Your task to perform on an android device: change the clock display to show seconds Image 0: 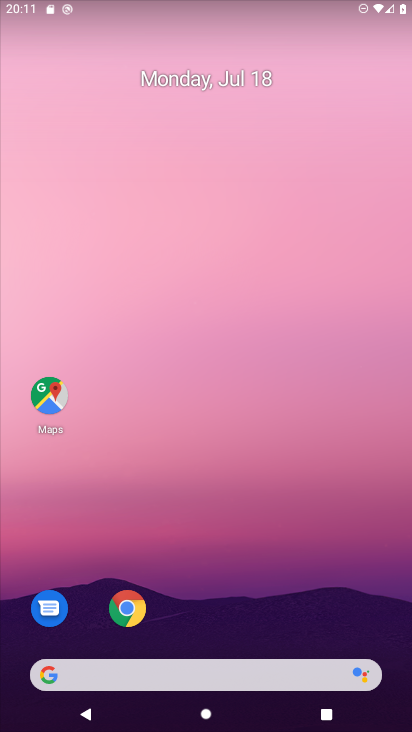
Step 0: drag from (229, 628) to (233, 224)
Your task to perform on an android device: change the clock display to show seconds Image 1: 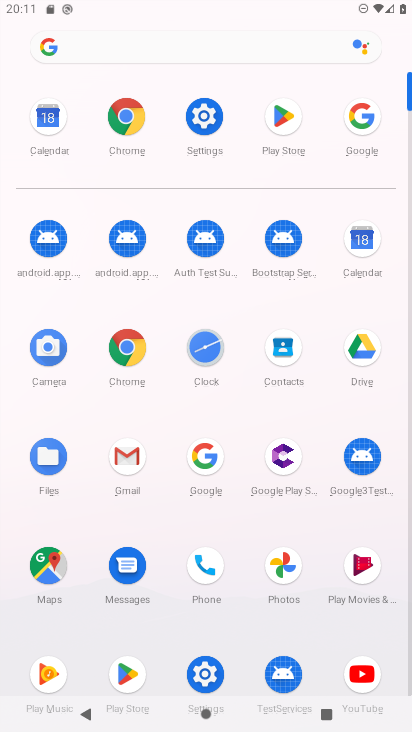
Step 1: click (205, 351)
Your task to perform on an android device: change the clock display to show seconds Image 2: 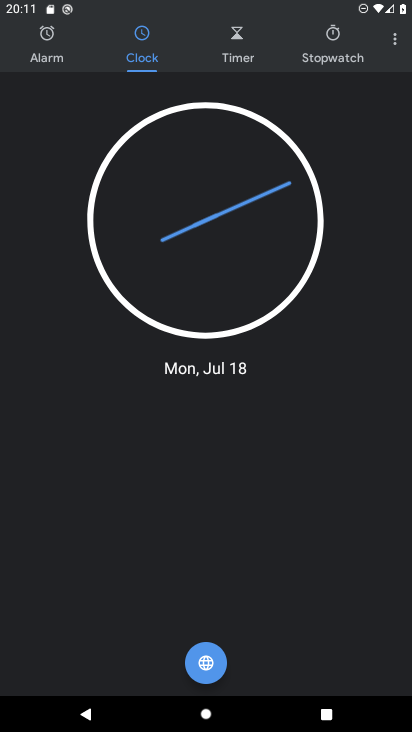
Step 2: click (390, 33)
Your task to perform on an android device: change the clock display to show seconds Image 3: 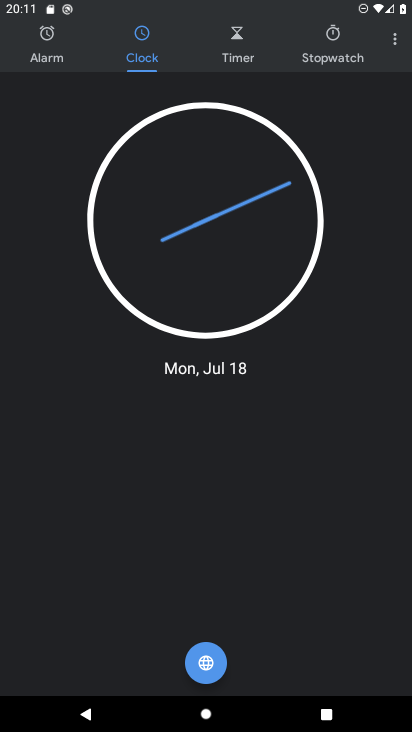
Step 3: click (391, 40)
Your task to perform on an android device: change the clock display to show seconds Image 4: 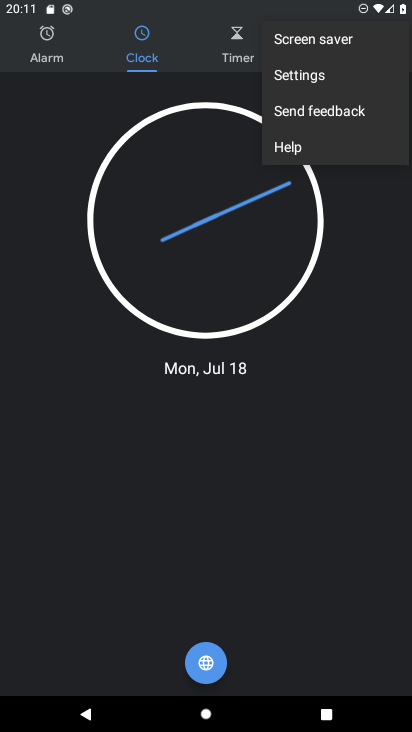
Step 4: click (318, 78)
Your task to perform on an android device: change the clock display to show seconds Image 5: 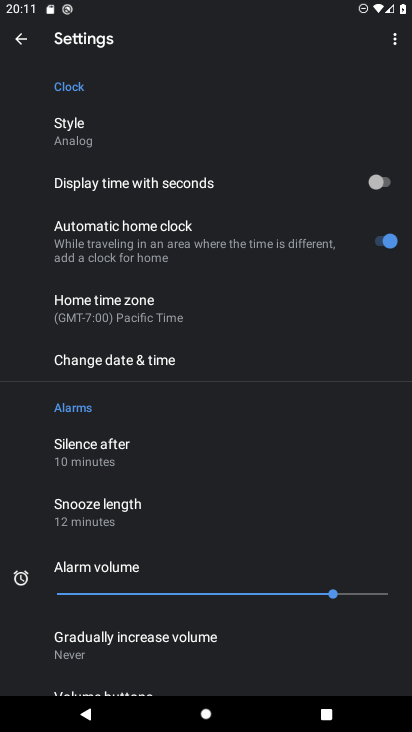
Step 5: click (379, 177)
Your task to perform on an android device: change the clock display to show seconds Image 6: 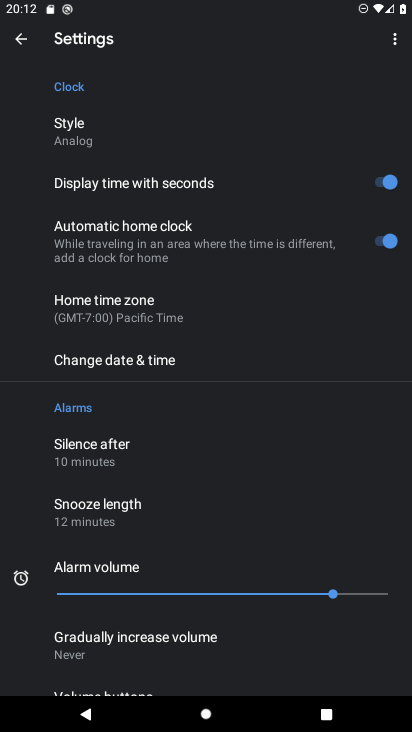
Step 6: task complete